Your task to perform on an android device: Open the phone app and click the voicemail tab. Image 0: 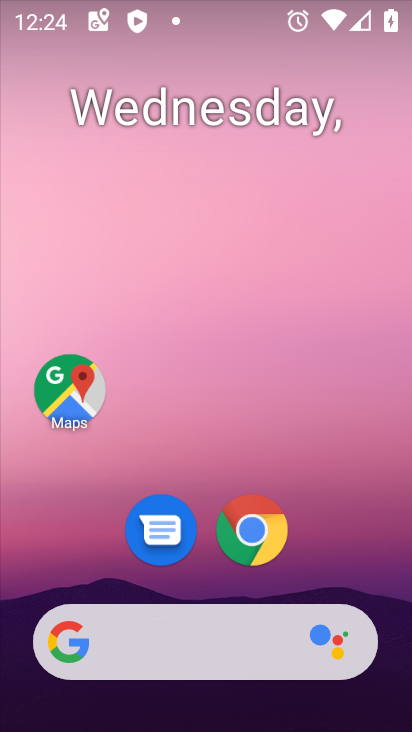
Step 0: drag from (197, 572) to (327, 64)
Your task to perform on an android device: Open the phone app and click the voicemail tab. Image 1: 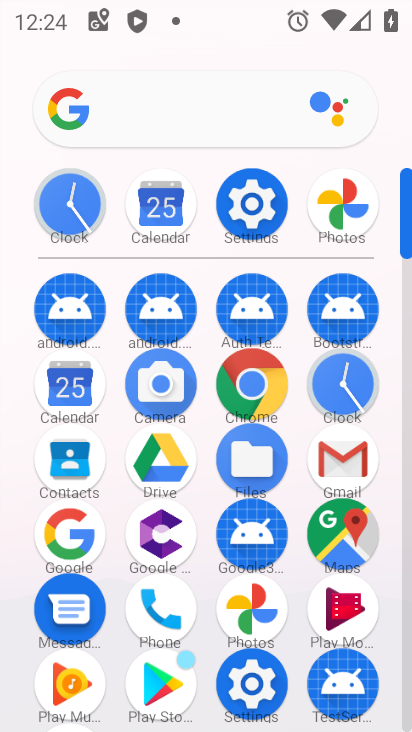
Step 1: click (168, 604)
Your task to perform on an android device: Open the phone app and click the voicemail tab. Image 2: 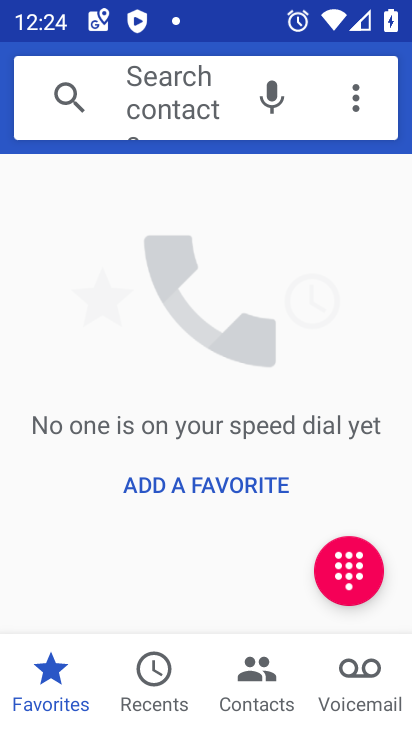
Step 2: click (375, 683)
Your task to perform on an android device: Open the phone app and click the voicemail tab. Image 3: 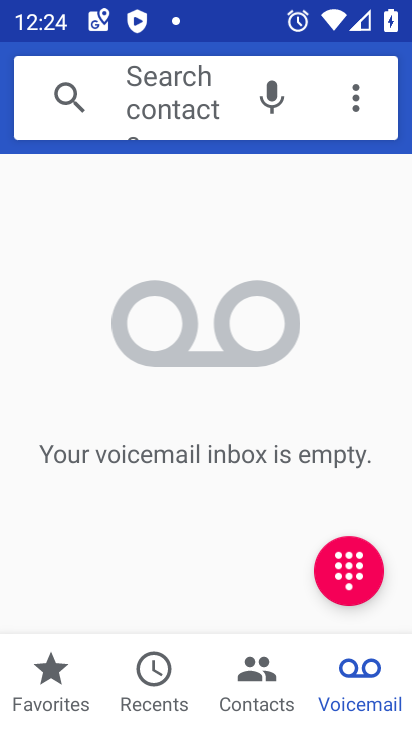
Step 3: task complete